Your task to perform on an android device: Play the last video I watched on Youtube Image 0: 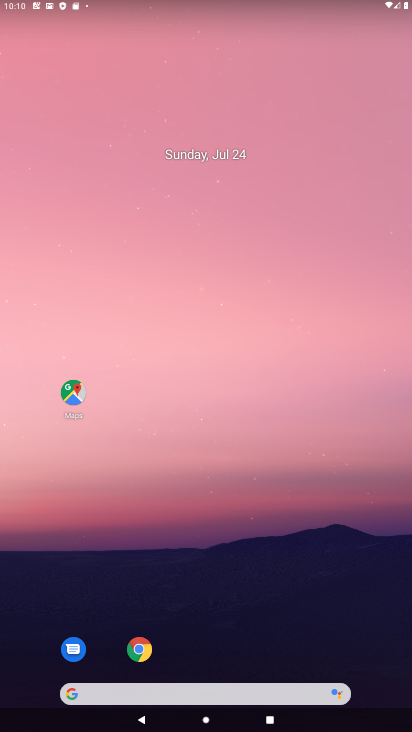
Step 0: click (346, 91)
Your task to perform on an android device: Play the last video I watched on Youtube Image 1: 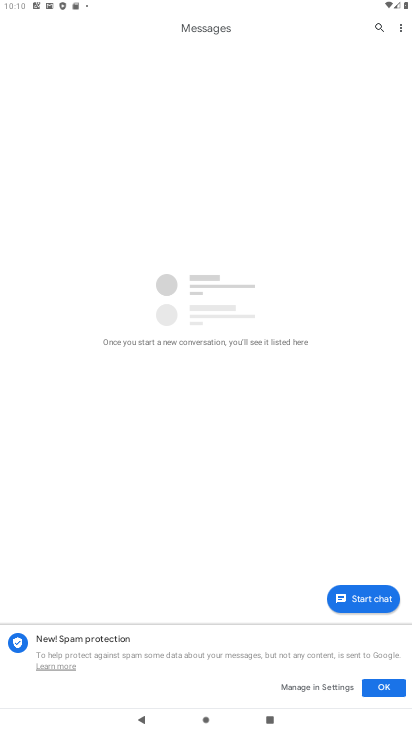
Step 1: press home button
Your task to perform on an android device: Play the last video I watched on Youtube Image 2: 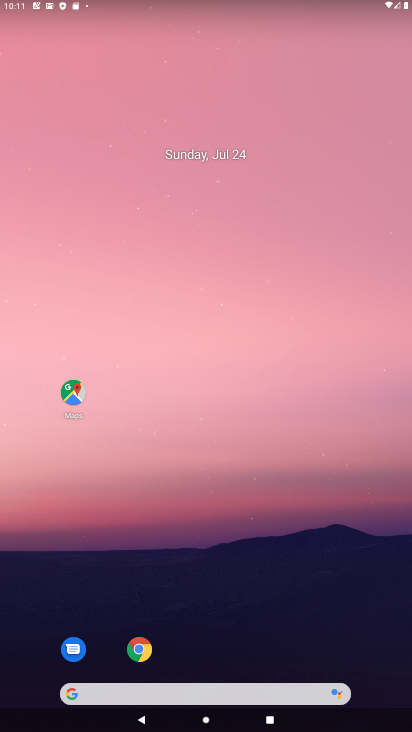
Step 2: drag from (263, 567) to (343, 53)
Your task to perform on an android device: Play the last video I watched on Youtube Image 3: 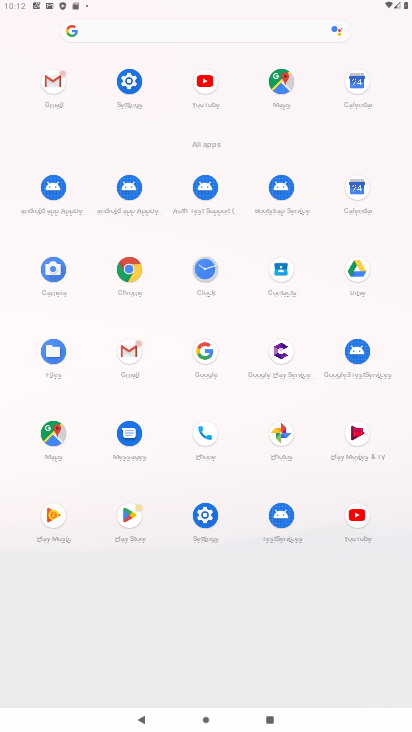
Step 3: click (348, 527)
Your task to perform on an android device: Play the last video I watched on Youtube Image 4: 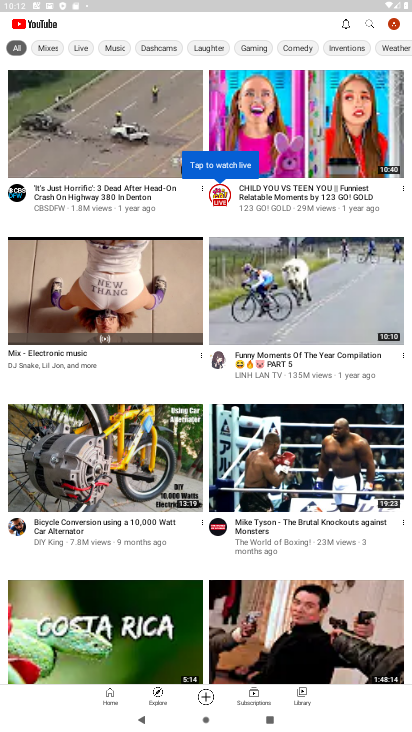
Step 4: click (299, 690)
Your task to perform on an android device: Play the last video I watched on Youtube Image 5: 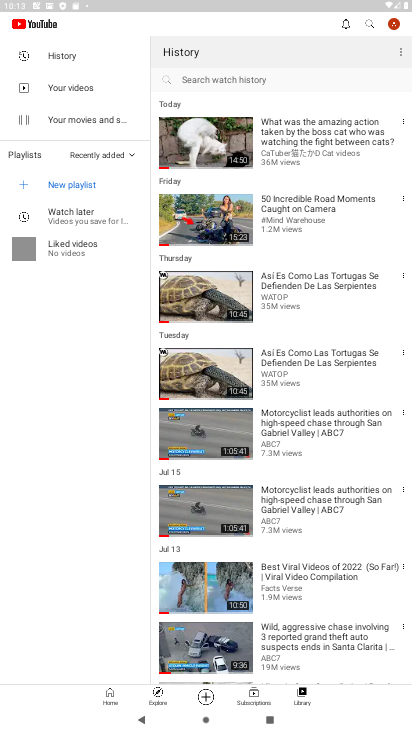
Step 5: click (202, 137)
Your task to perform on an android device: Play the last video I watched on Youtube Image 6: 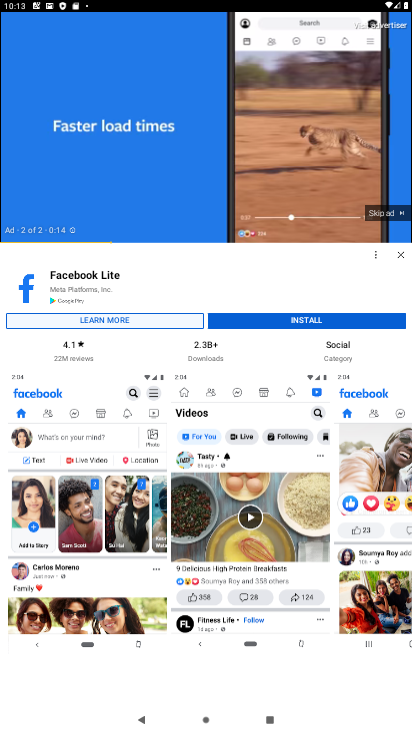
Step 6: task complete